Your task to perform on an android device: open a new tab in the chrome app Image 0: 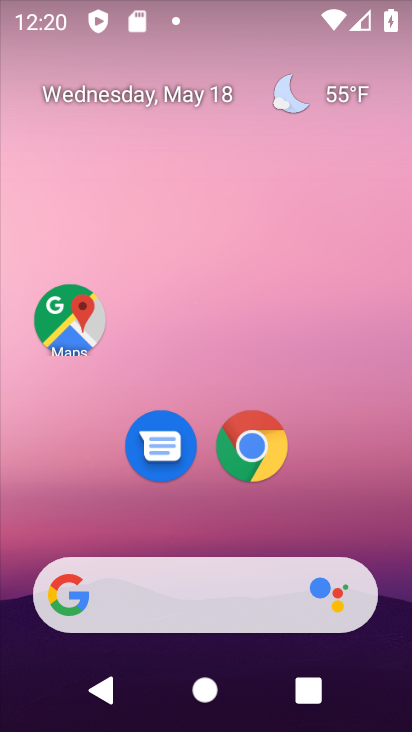
Step 0: click (262, 455)
Your task to perform on an android device: open a new tab in the chrome app Image 1: 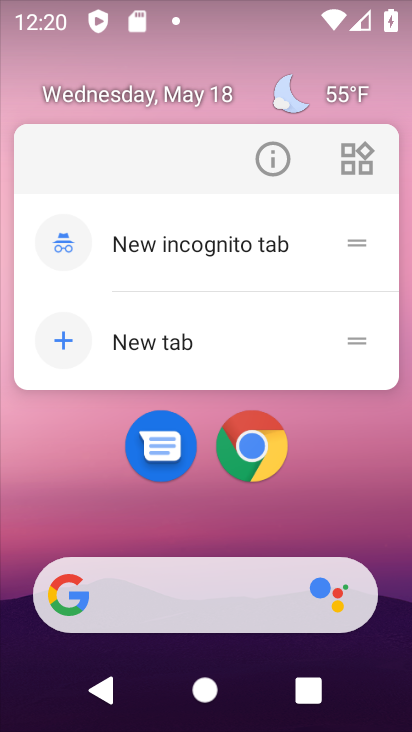
Step 1: click (261, 454)
Your task to perform on an android device: open a new tab in the chrome app Image 2: 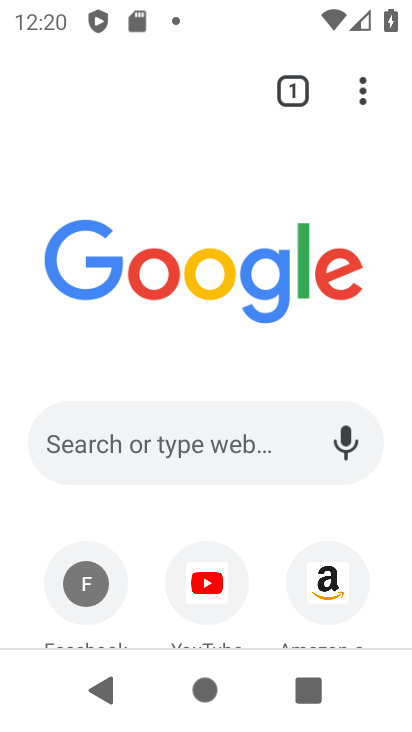
Step 2: click (362, 95)
Your task to perform on an android device: open a new tab in the chrome app Image 3: 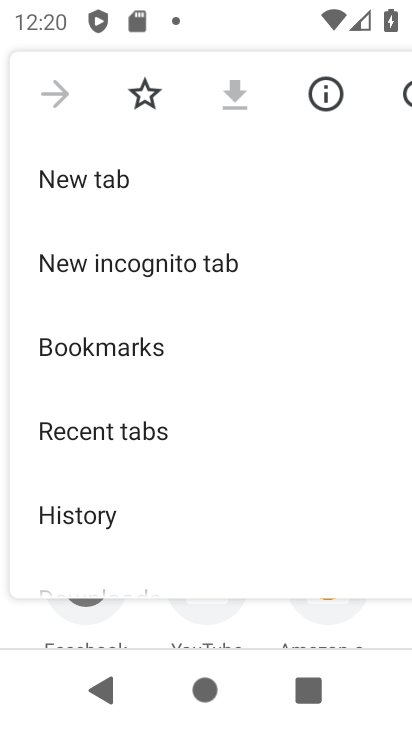
Step 3: click (111, 178)
Your task to perform on an android device: open a new tab in the chrome app Image 4: 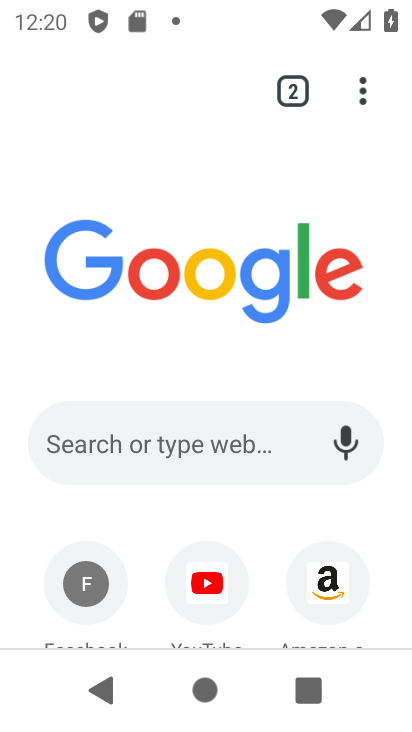
Step 4: task complete